Your task to perform on an android device: empty trash in the gmail app Image 0: 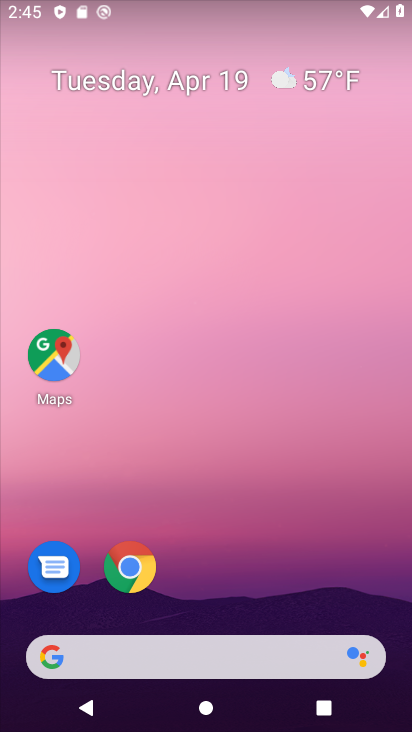
Step 0: drag from (388, 605) to (14, 461)
Your task to perform on an android device: empty trash in the gmail app Image 1: 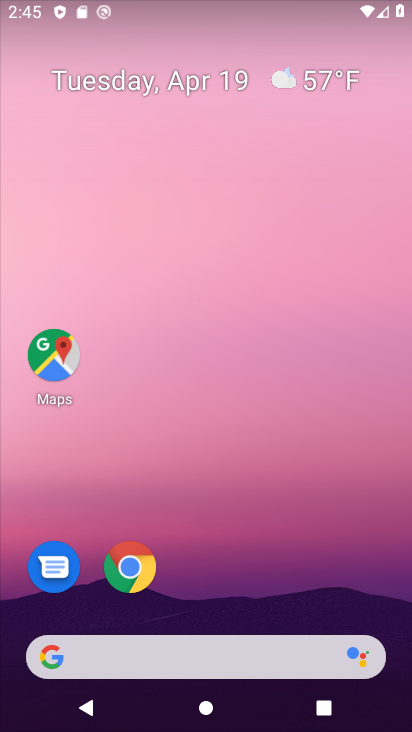
Step 1: drag from (385, 597) to (358, 126)
Your task to perform on an android device: empty trash in the gmail app Image 2: 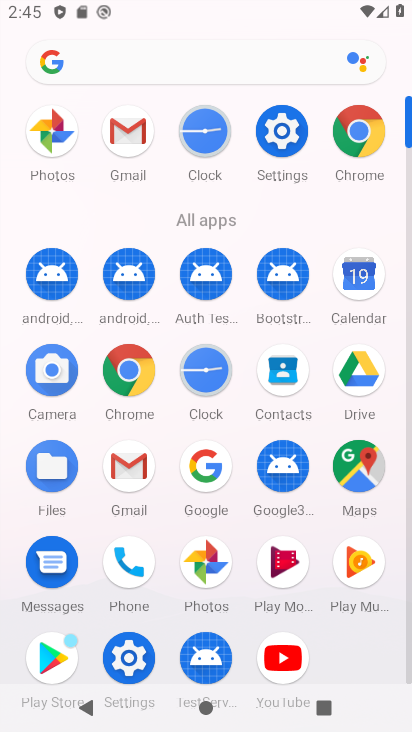
Step 2: click (123, 471)
Your task to perform on an android device: empty trash in the gmail app Image 3: 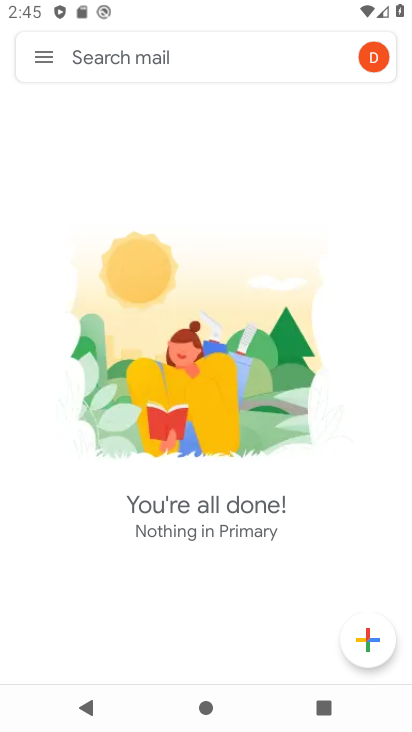
Step 3: click (46, 62)
Your task to perform on an android device: empty trash in the gmail app Image 4: 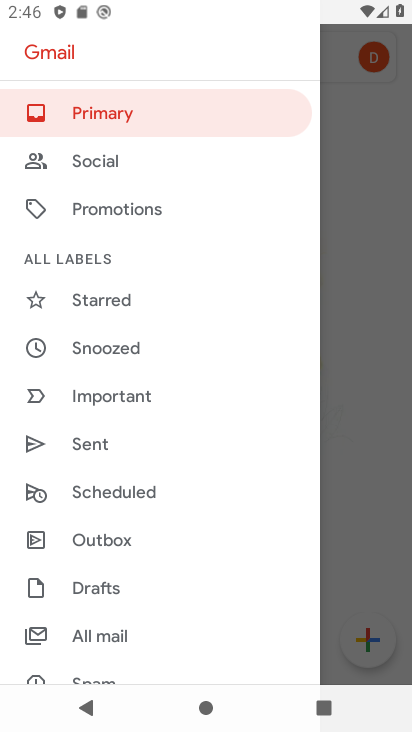
Step 4: drag from (240, 561) to (244, 358)
Your task to perform on an android device: empty trash in the gmail app Image 5: 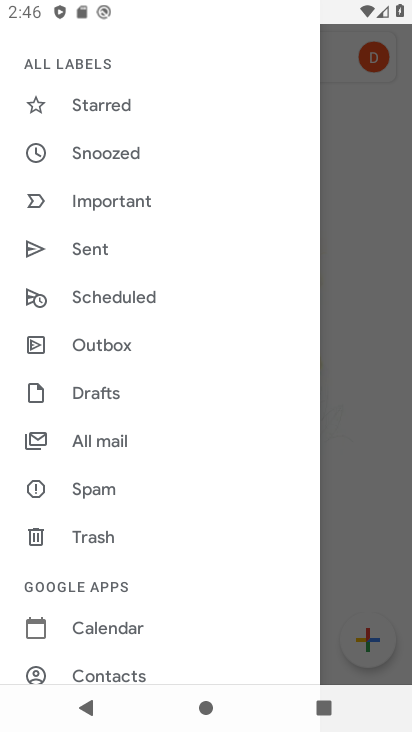
Step 5: click (99, 534)
Your task to perform on an android device: empty trash in the gmail app Image 6: 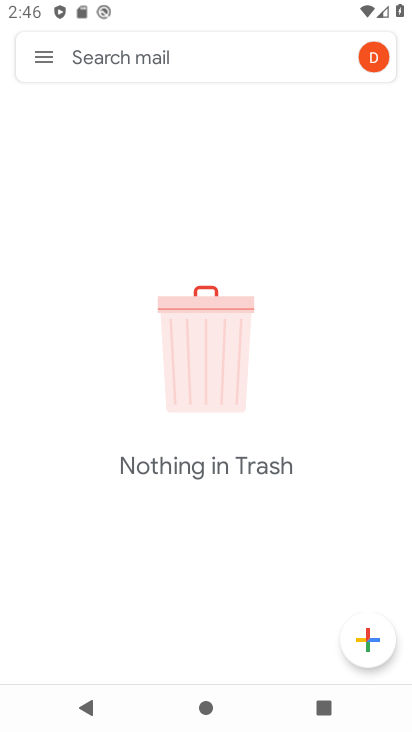
Step 6: task complete